Your task to perform on an android device: Is it going to rain tomorrow? Image 0: 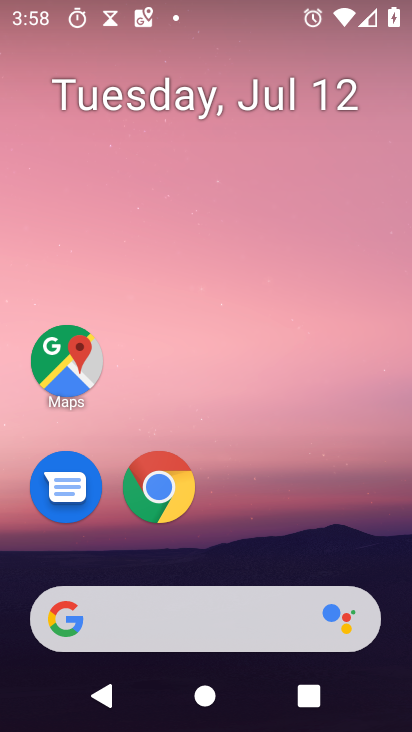
Step 0: click (65, 367)
Your task to perform on an android device: Is it going to rain tomorrow? Image 1: 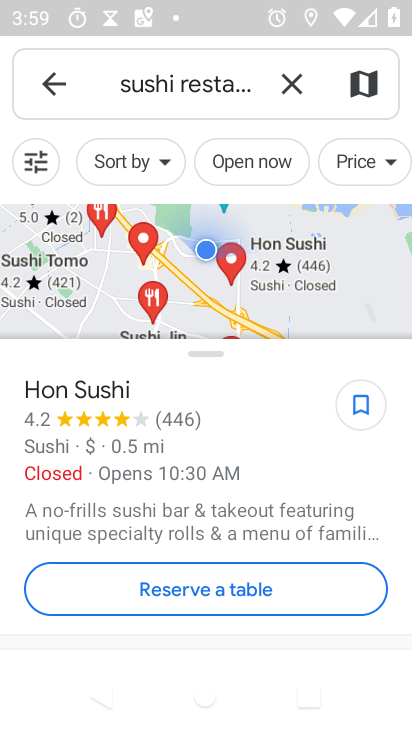
Step 1: press home button
Your task to perform on an android device: Is it going to rain tomorrow? Image 2: 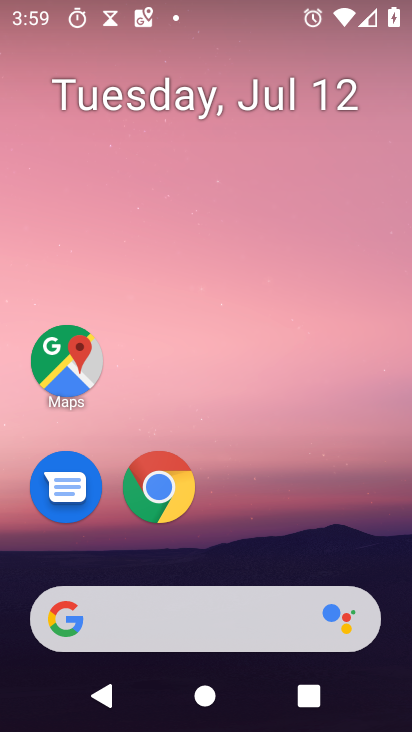
Step 2: drag from (165, 579) to (169, 134)
Your task to perform on an android device: Is it going to rain tomorrow? Image 3: 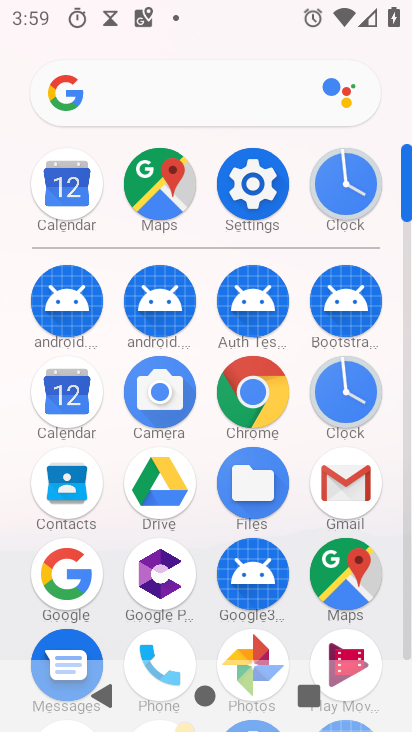
Step 3: click (71, 584)
Your task to perform on an android device: Is it going to rain tomorrow? Image 4: 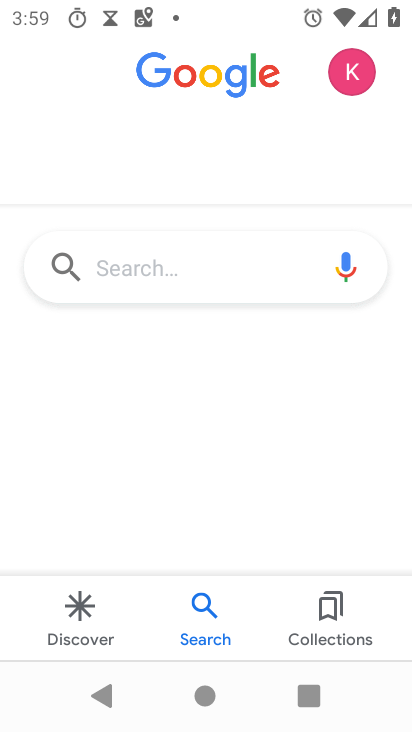
Step 4: click (127, 268)
Your task to perform on an android device: Is it going to rain tomorrow? Image 5: 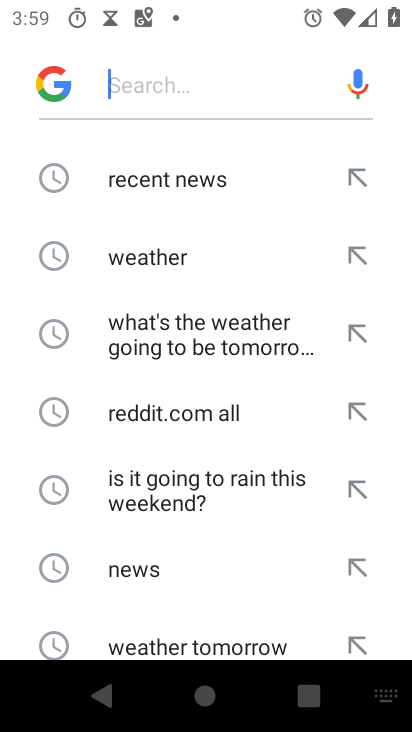
Step 5: drag from (149, 595) to (188, 221)
Your task to perform on an android device: Is it going to rain tomorrow? Image 6: 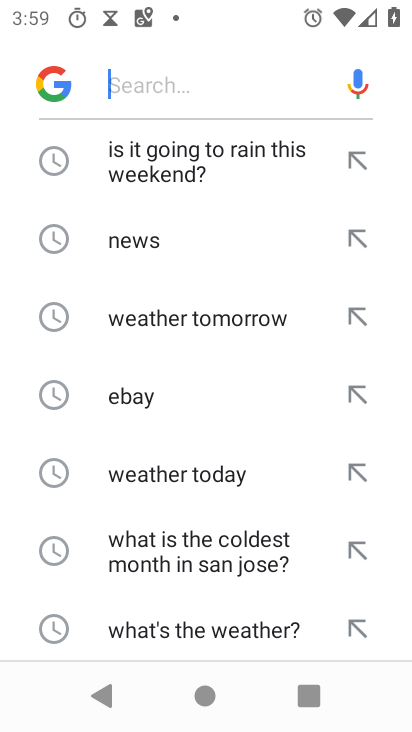
Step 6: drag from (169, 594) to (204, 251)
Your task to perform on an android device: Is it going to rain tomorrow? Image 7: 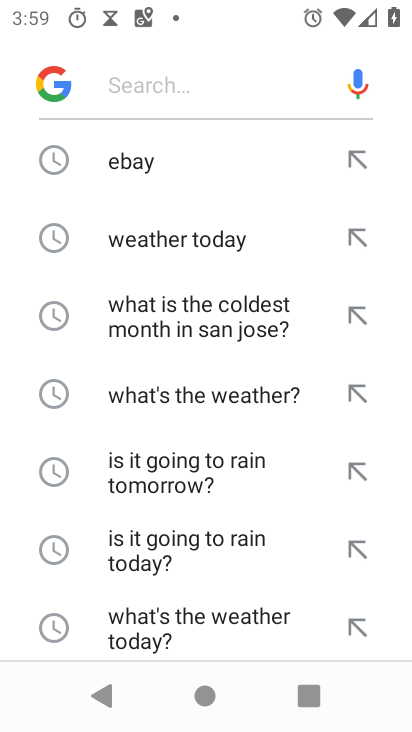
Step 7: click (156, 476)
Your task to perform on an android device: Is it going to rain tomorrow? Image 8: 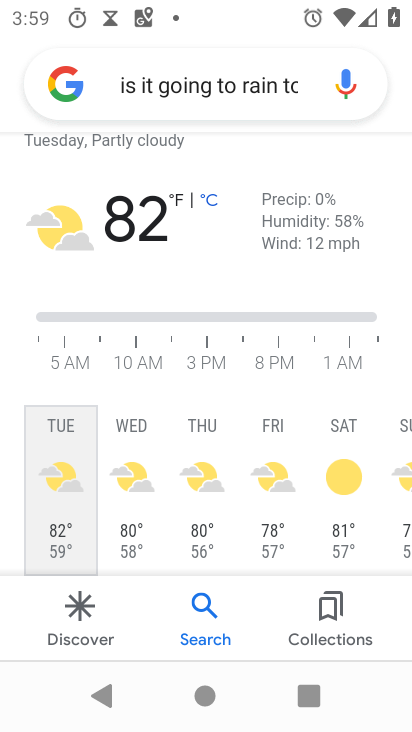
Step 8: task complete